Your task to perform on an android device: Do I have any events today? Image 0: 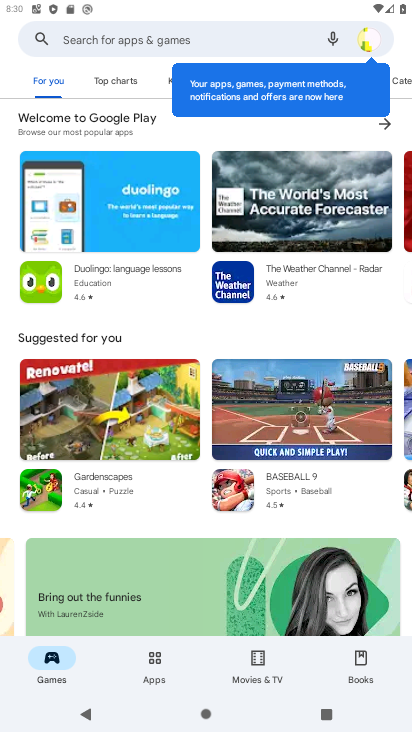
Step 0: press back button
Your task to perform on an android device: Do I have any events today? Image 1: 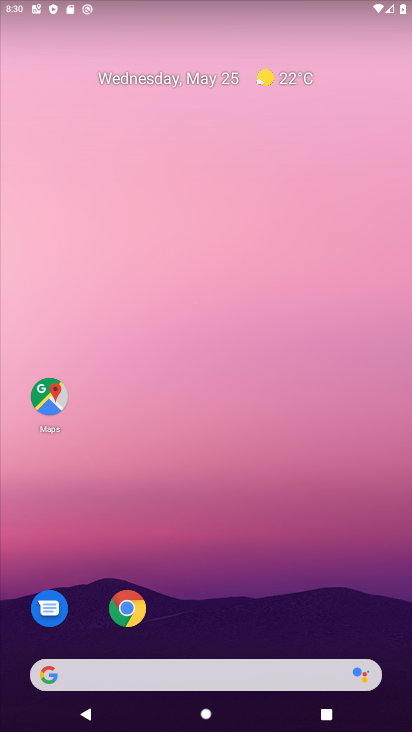
Step 1: drag from (291, 616) to (239, 128)
Your task to perform on an android device: Do I have any events today? Image 2: 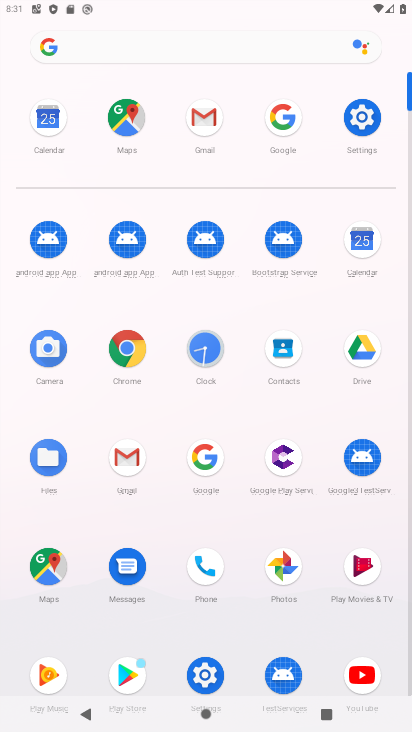
Step 2: click (362, 240)
Your task to perform on an android device: Do I have any events today? Image 3: 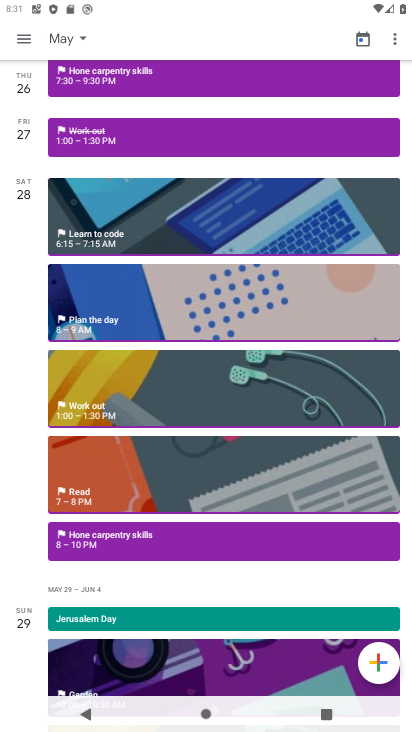
Step 3: click (366, 37)
Your task to perform on an android device: Do I have any events today? Image 4: 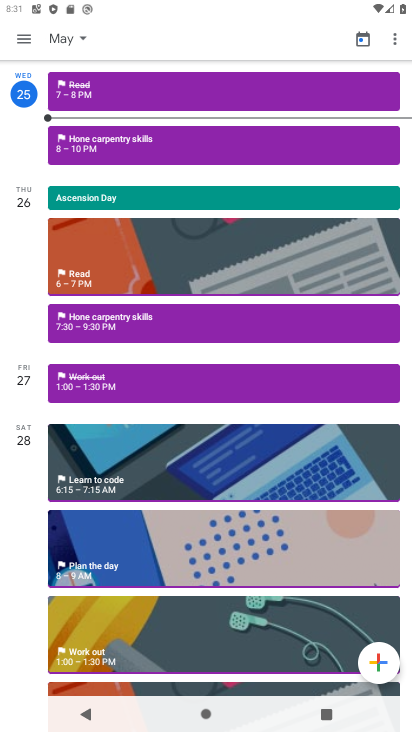
Step 4: click (104, 112)
Your task to perform on an android device: Do I have any events today? Image 5: 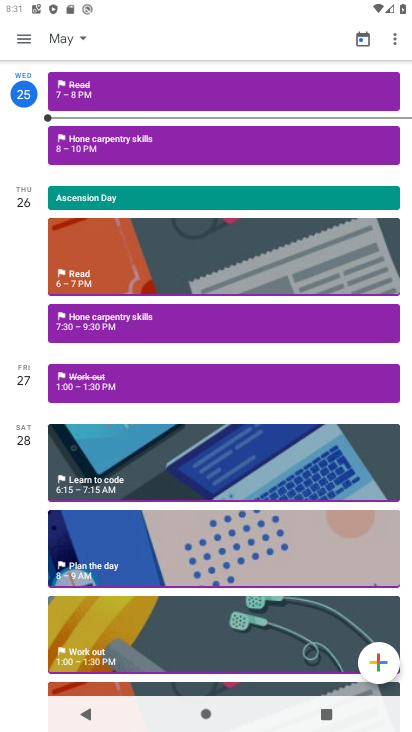
Step 5: click (107, 92)
Your task to perform on an android device: Do I have any events today? Image 6: 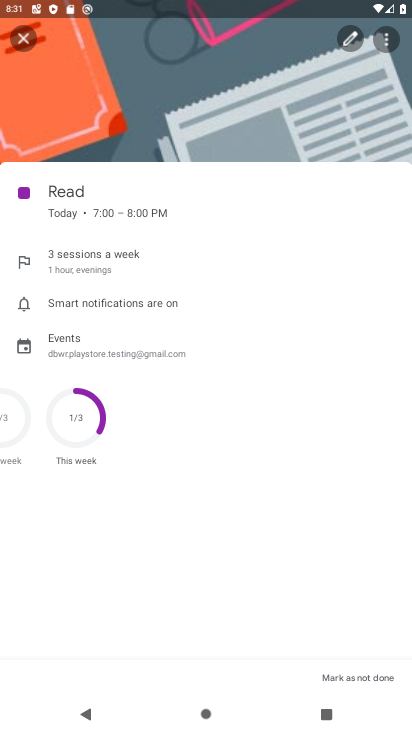
Step 6: task complete